Your task to perform on an android device: clear history in the chrome app Image 0: 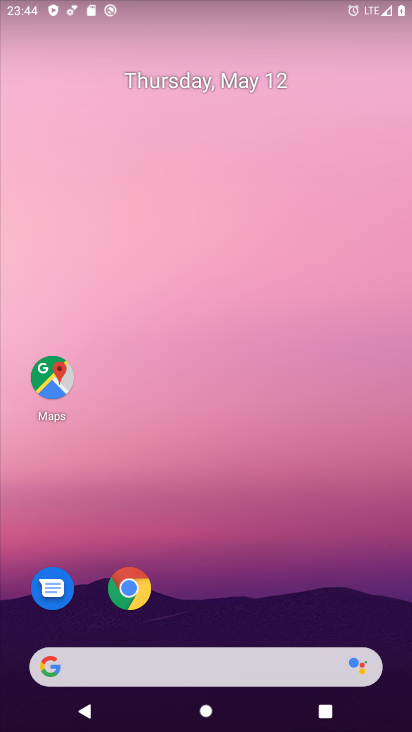
Step 0: drag from (203, 608) to (216, 376)
Your task to perform on an android device: clear history in the chrome app Image 1: 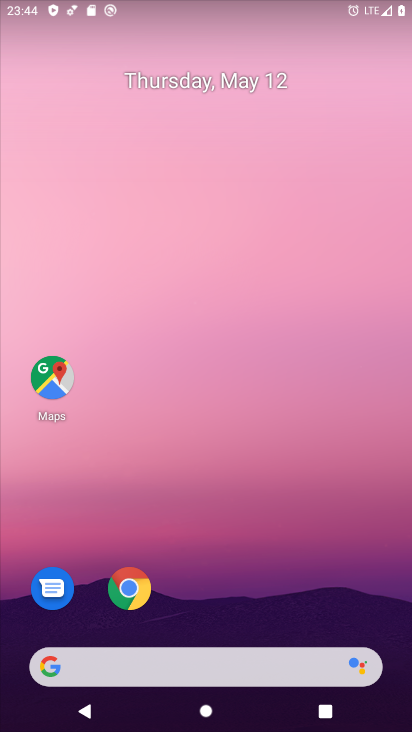
Step 1: drag from (198, 613) to (265, 143)
Your task to perform on an android device: clear history in the chrome app Image 2: 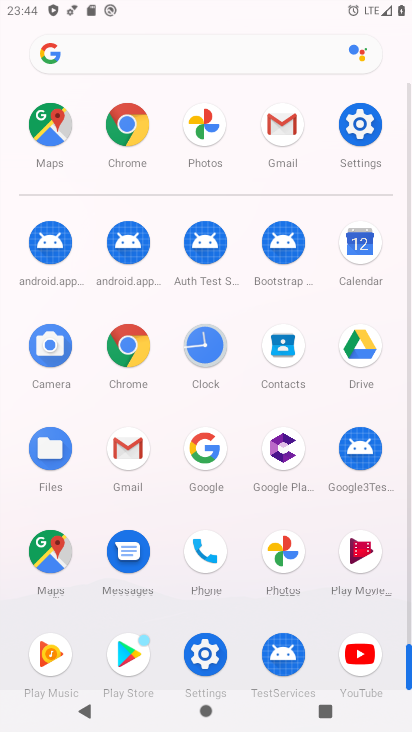
Step 2: click (116, 345)
Your task to perform on an android device: clear history in the chrome app Image 3: 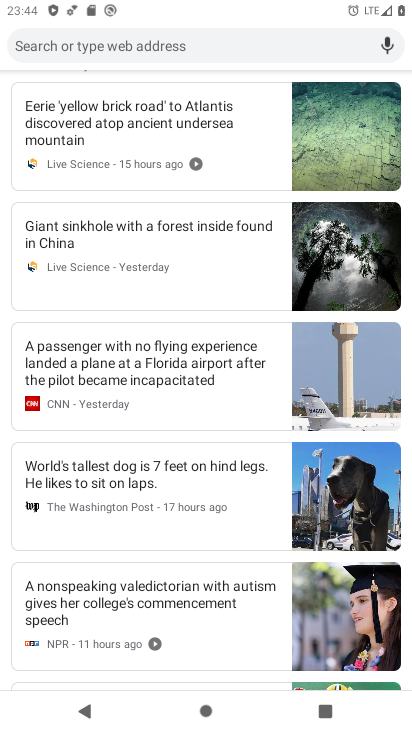
Step 3: drag from (261, 142) to (328, 729)
Your task to perform on an android device: clear history in the chrome app Image 4: 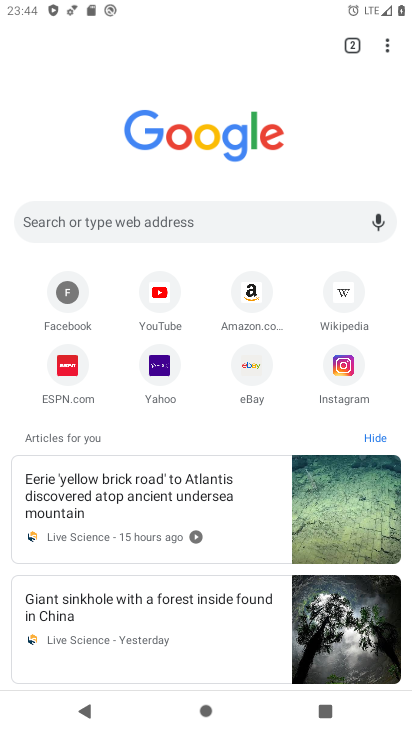
Step 4: drag from (388, 54) to (242, 257)
Your task to perform on an android device: clear history in the chrome app Image 5: 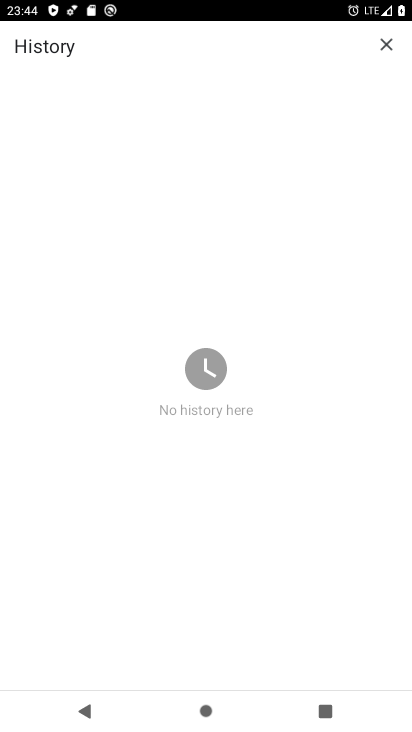
Step 5: click (232, 264)
Your task to perform on an android device: clear history in the chrome app Image 6: 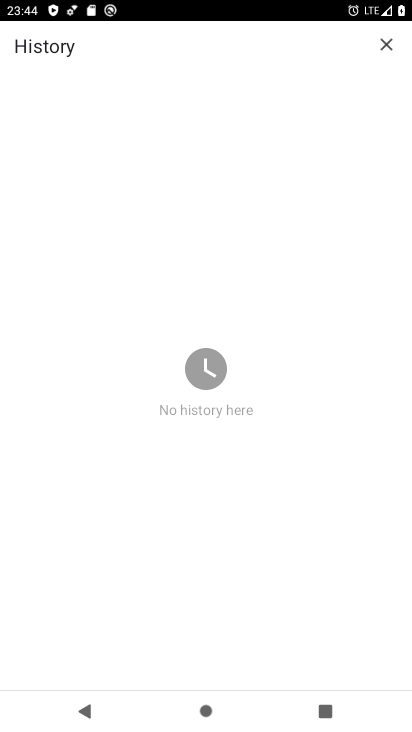
Step 6: task complete